Your task to perform on an android device: manage bookmarks in the chrome app Image 0: 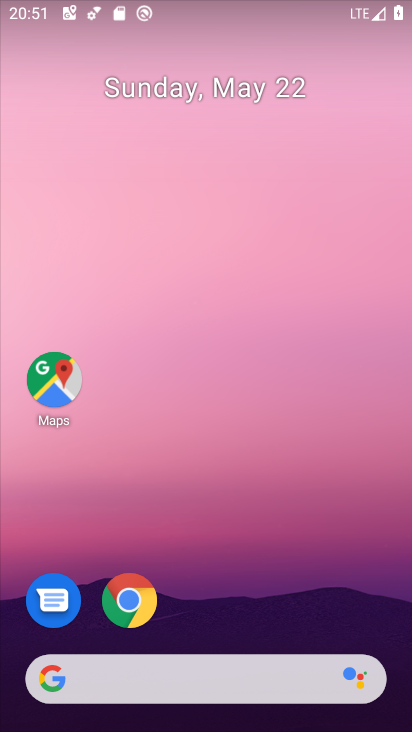
Step 0: click (121, 591)
Your task to perform on an android device: manage bookmarks in the chrome app Image 1: 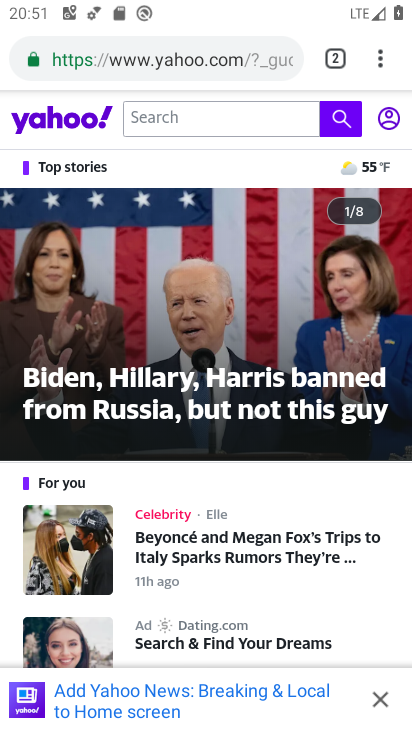
Step 1: click (387, 57)
Your task to perform on an android device: manage bookmarks in the chrome app Image 2: 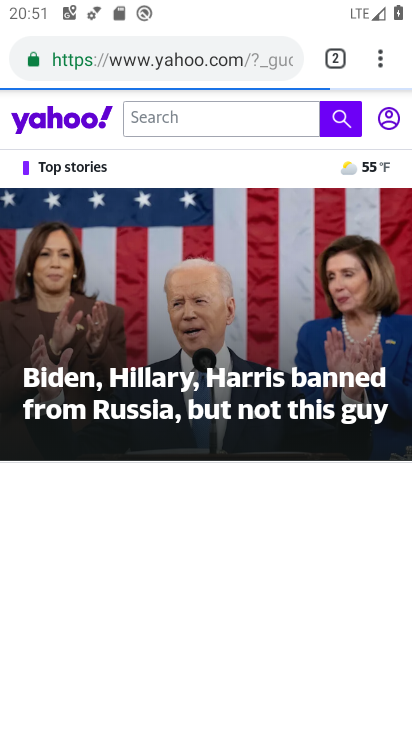
Step 2: click (375, 55)
Your task to perform on an android device: manage bookmarks in the chrome app Image 3: 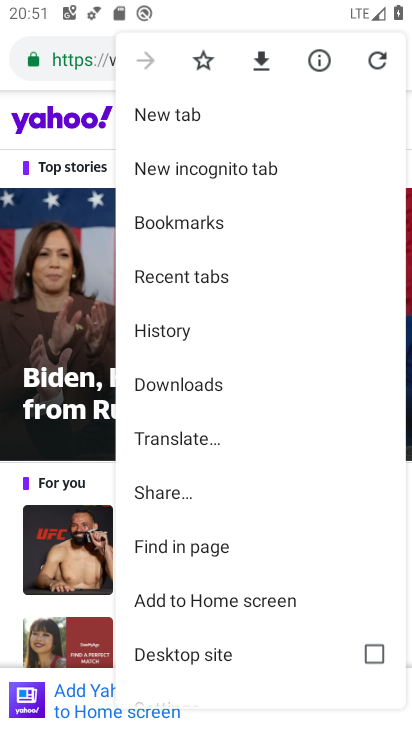
Step 3: click (174, 221)
Your task to perform on an android device: manage bookmarks in the chrome app Image 4: 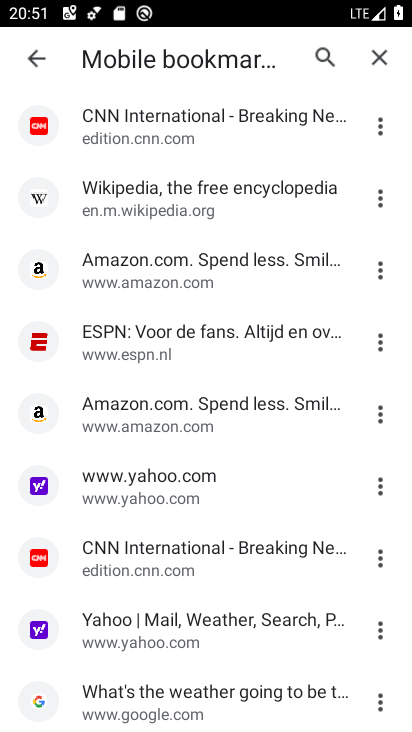
Step 4: click (178, 556)
Your task to perform on an android device: manage bookmarks in the chrome app Image 5: 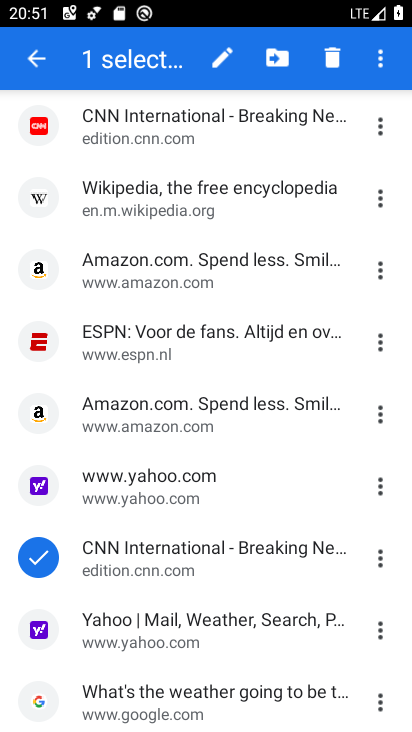
Step 5: click (339, 51)
Your task to perform on an android device: manage bookmarks in the chrome app Image 6: 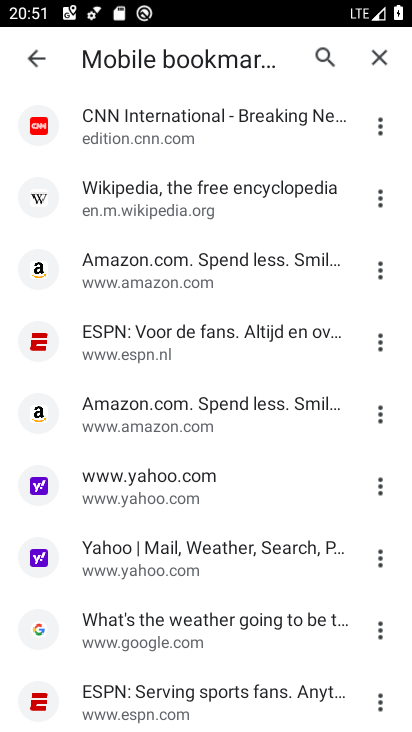
Step 6: click (166, 413)
Your task to perform on an android device: manage bookmarks in the chrome app Image 7: 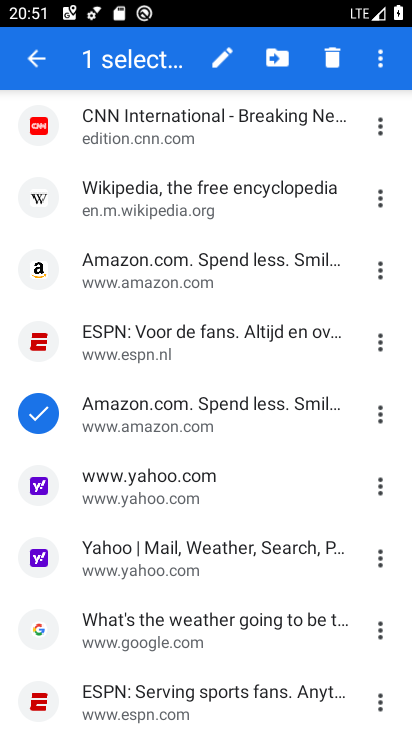
Step 7: click (324, 61)
Your task to perform on an android device: manage bookmarks in the chrome app Image 8: 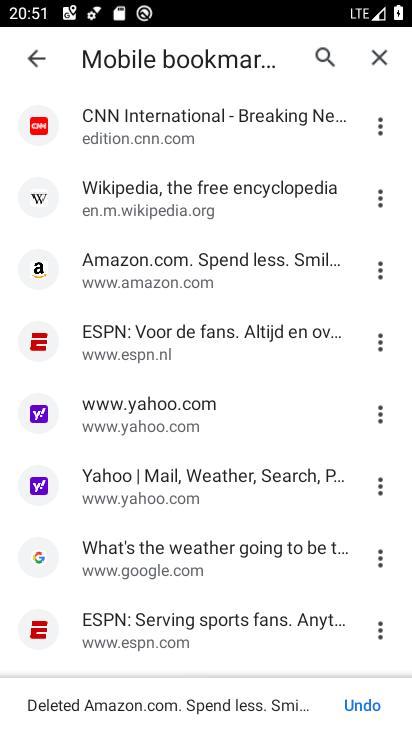
Step 8: drag from (183, 683) to (221, 293)
Your task to perform on an android device: manage bookmarks in the chrome app Image 9: 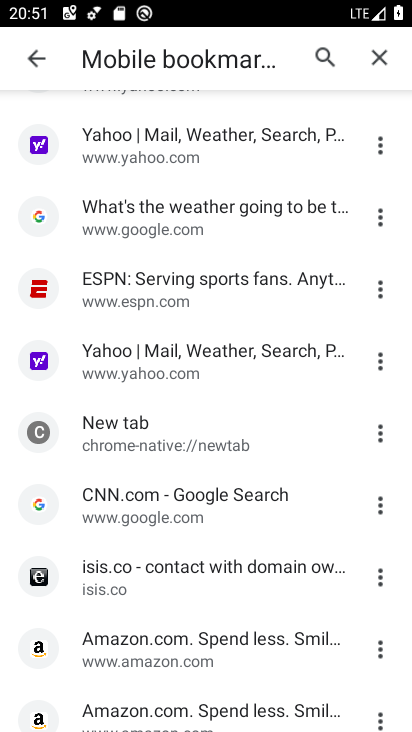
Step 9: click (156, 350)
Your task to perform on an android device: manage bookmarks in the chrome app Image 10: 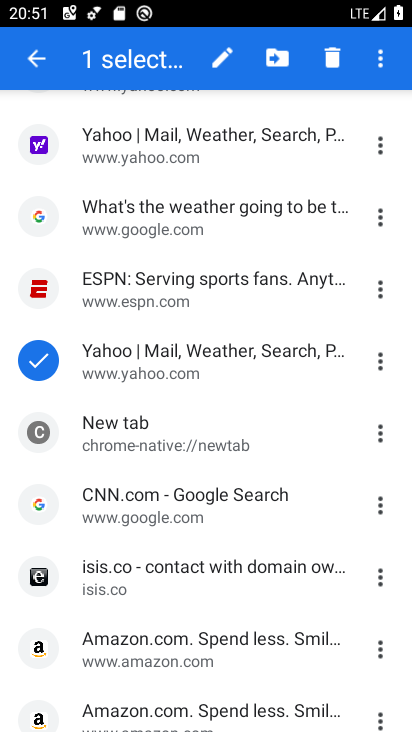
Step 10: click (334, 58)
Your task to perform on an android device: manage bookmarks in the chrome app Image 11: 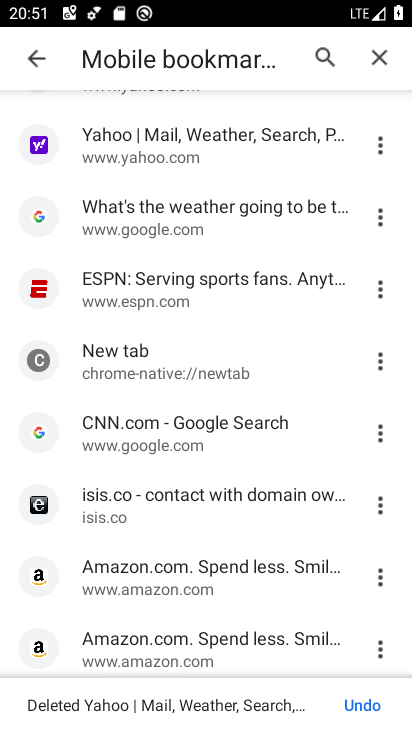
Step 11: click (159, 572)
Your task to perform on an android device: manage bookmarks in the chrome app Image 12: 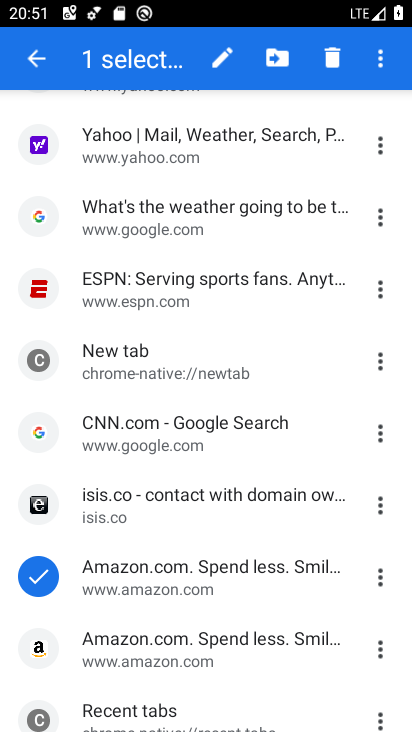
Step 12: click (328, 52)
Your task to perform on an android device: manage bookmarks in the chrome app Image 13: 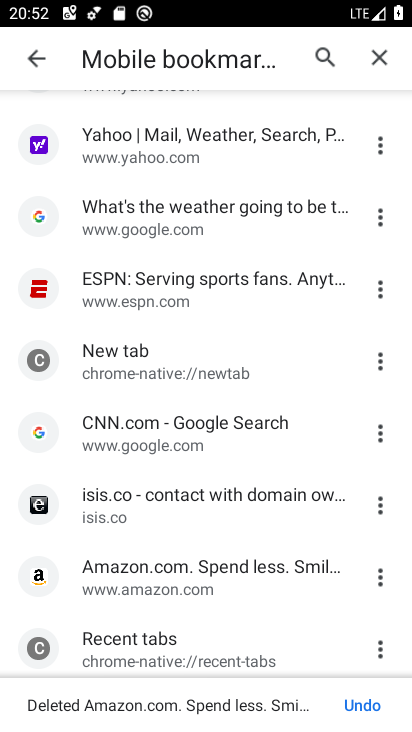
Step 13: click (145, 565)
Your task to perform on an android device: manage bookmarks in the chrome app Image 14: 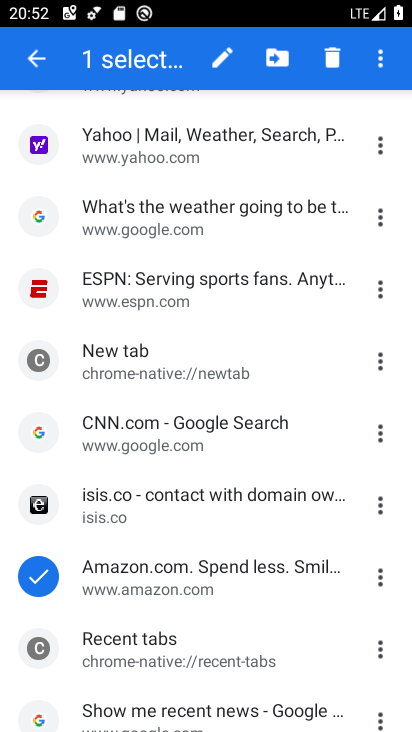
Step 14: click (345, 50)
Your task to perform on an android device: manage bookmarks in the chrome app Image 15: 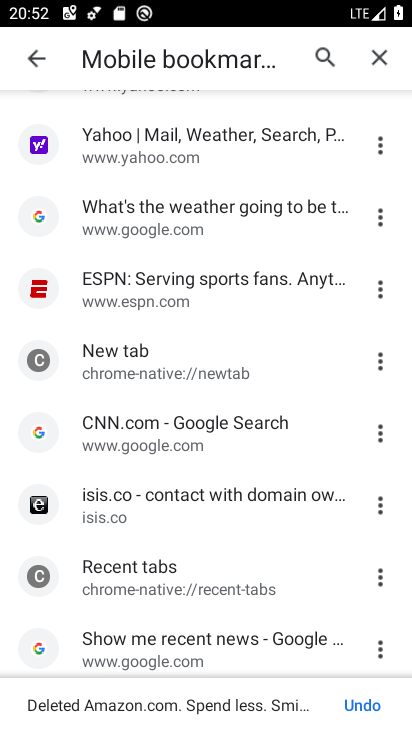
Step 15: drag from (162, 648) to (215, 214)
Your task to perform on an android device: manage bookmarks in the chrome app Image 16: 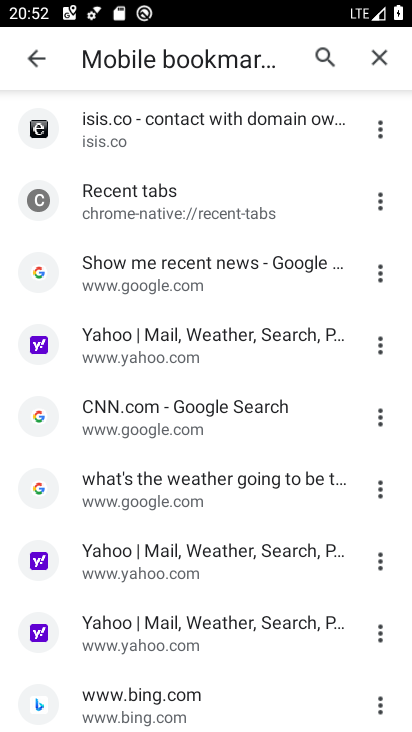
Step 16: click (182, 557)
Your task to perform on an android device: manage bookmarks in the chrome app Image 17: 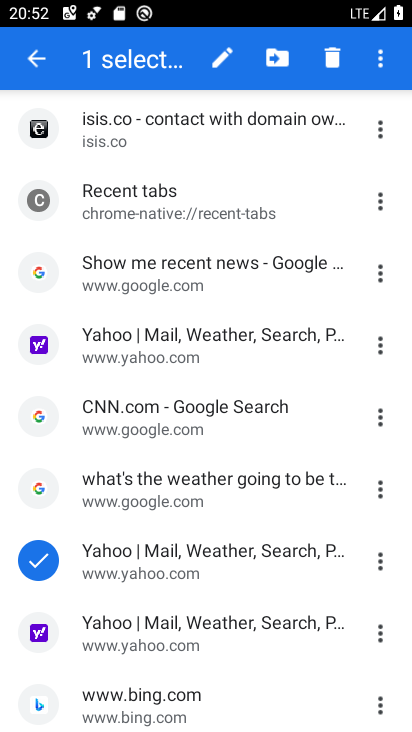
Step 17: click (335, 52)
Your task to perform on an android device: manage bookmarks in the chrome app Image 18: 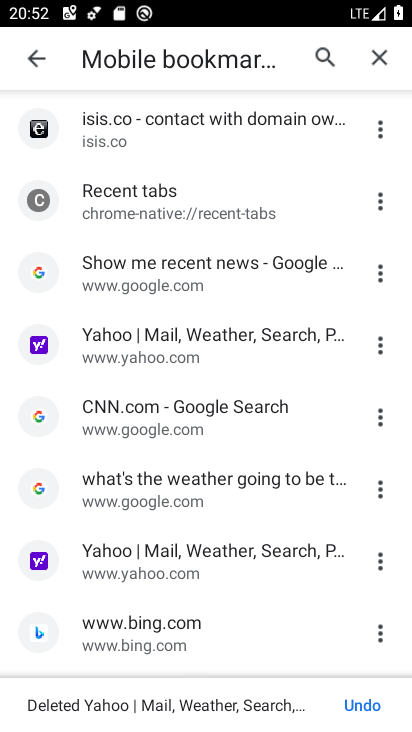
Step 18: click (171, 556)
Your task to perform on an android device: manage bookmarks in the chrome app Image 19: 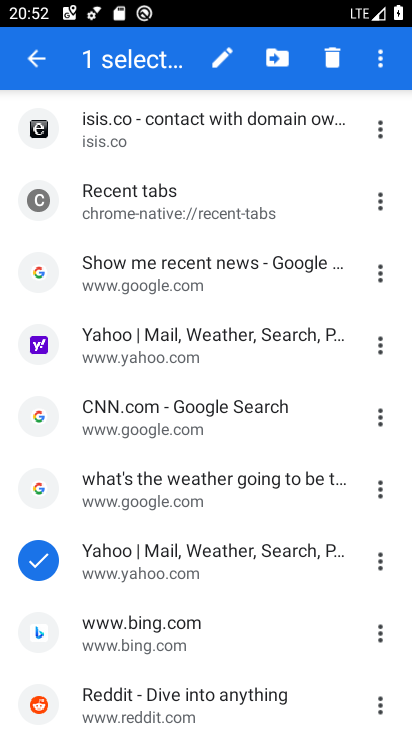
Step 19: click (334, 55)
Your task to perform on an android device: manage bookmarks in the chrome app Image 20: 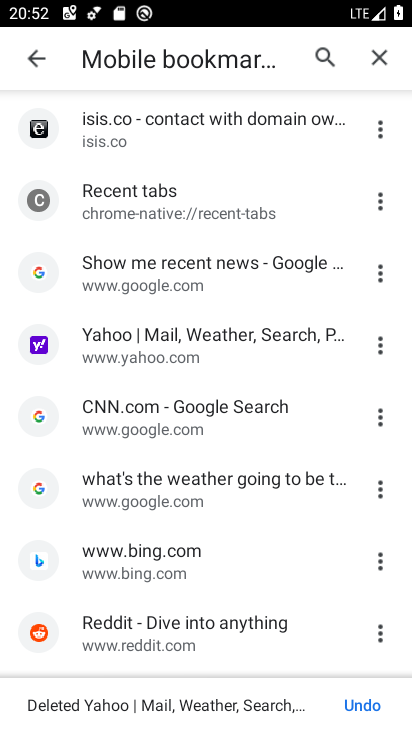
Step 20: task complete